Your task to perform on an android device: delete location history Image 0: 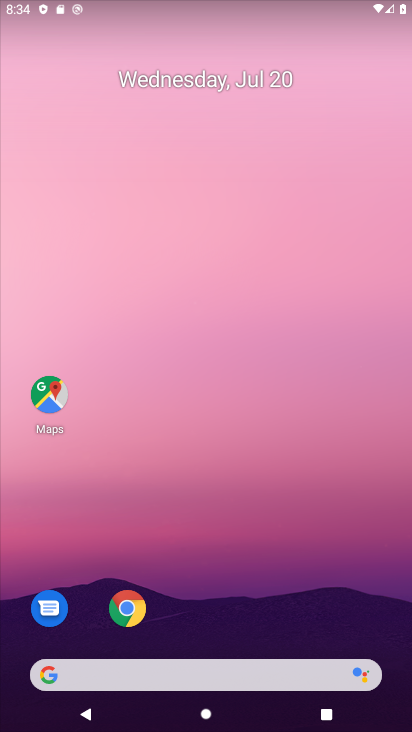
Step 0: drag from (277, 502) to (128, 1)
Your task to perform on an android device: delete location history Image 1: 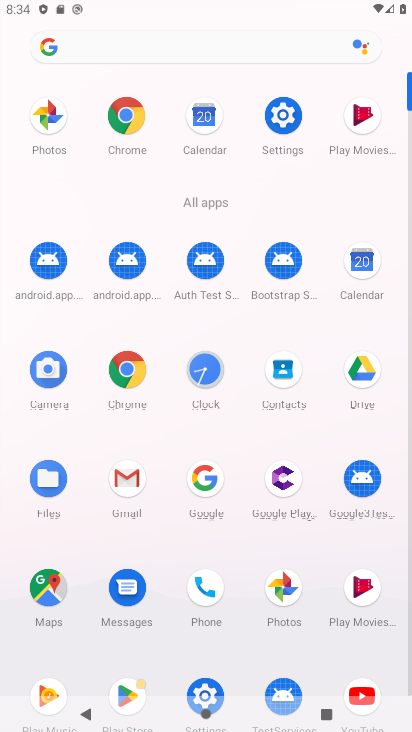
Step 1: click (48, 595)
Your task to perform on an android device: delete location history Image 2: 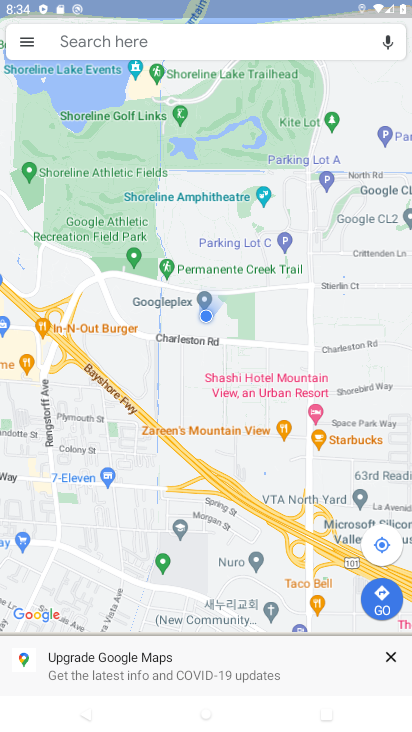
Step 2: click (35, 35)
Your task to perform on an android device: delete location history Image 3: 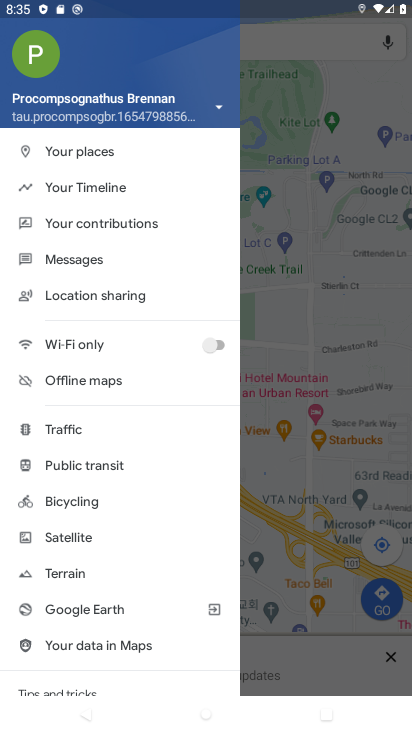
Step 3: click (75, 185)
Your task to perform on an android device: delete location history Image 4: 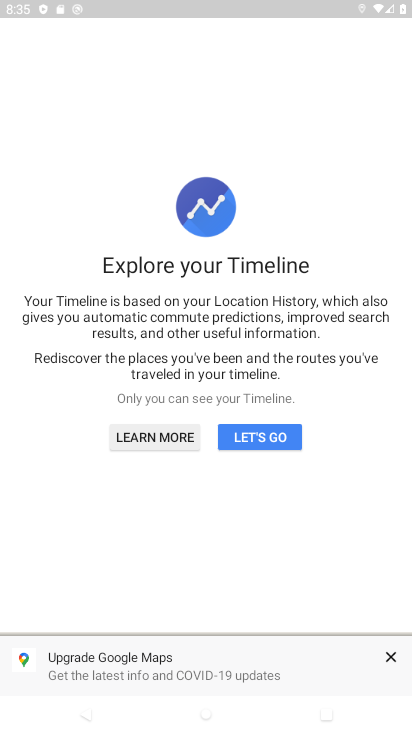
Step 4: click (254, 437)
Your task to perform on an android device: delete location history Image 5: 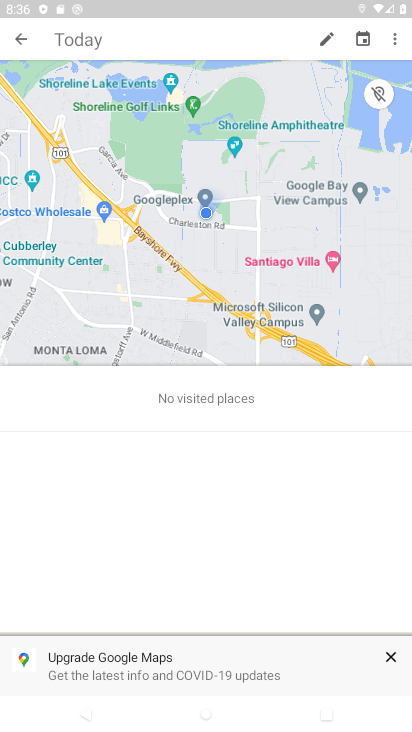
Step 5: click (403, 44)
Your task to perform on an android device: delete location history Image 6: 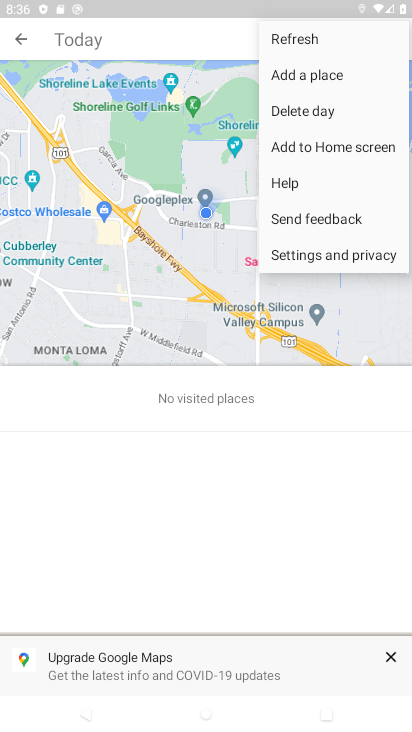
Step 6: click (314, 262)
Your task to perform on an android device: delete location history Image 7: 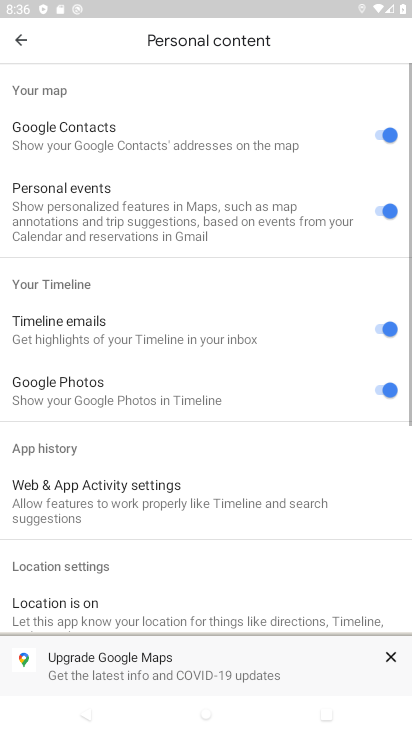
Step 7: drag from (194, 595) to (180, 188)
Your task to perform on an android device: delete location history Image 8: 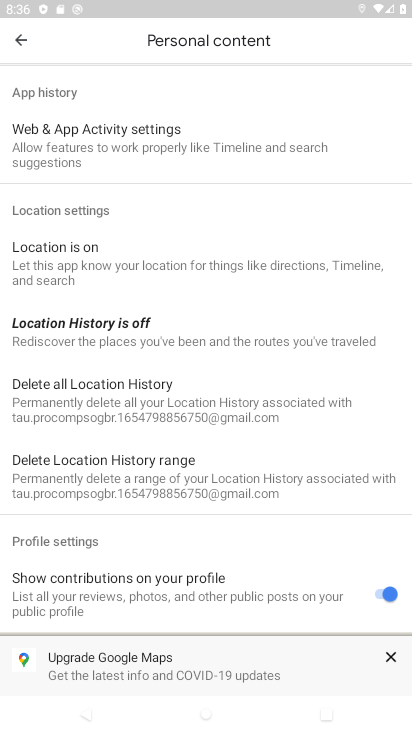
Step 8: drag from (140, 623) to (112, 236)
Your task to perform on an android device: delete location history Image 9: 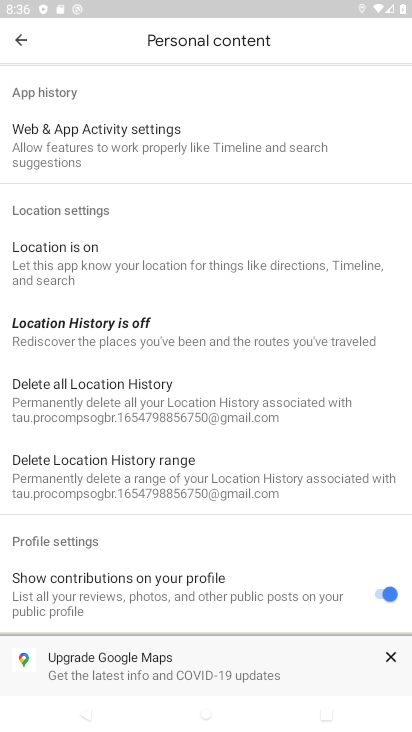
Step 9: click (59, 398)
Your task to perform on an android device: delete location history Image 10: 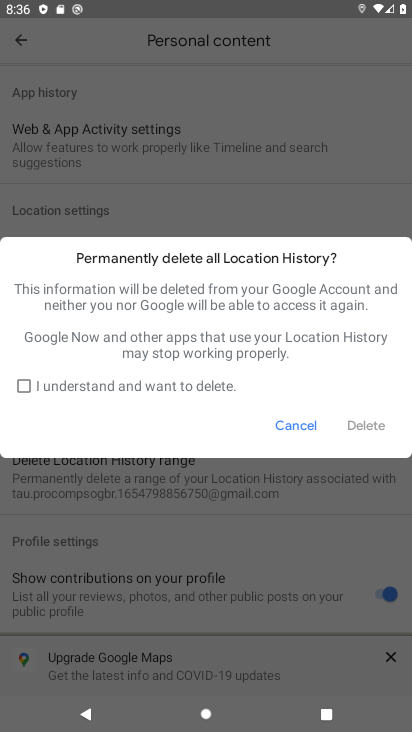
Step 10: click (22, 381)
Your task to perform on an android device: delete location history Image 11: 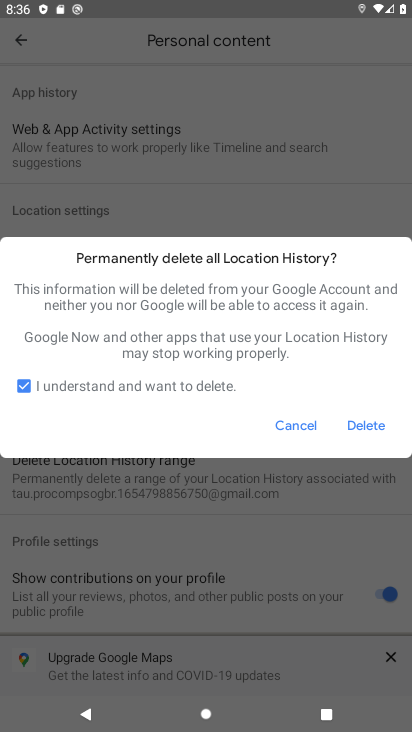
Step 11: click (369, 421)
Your task to perform on an android device: delete location history Image 12: 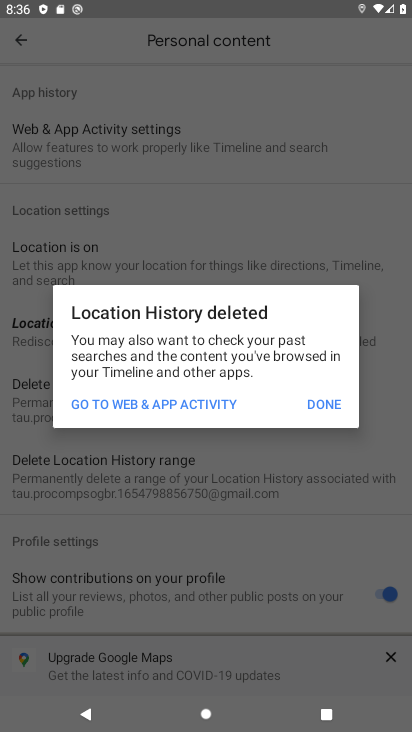
Step 12: task complete